Your task to perform on an android device: Go to display settings Image 0: 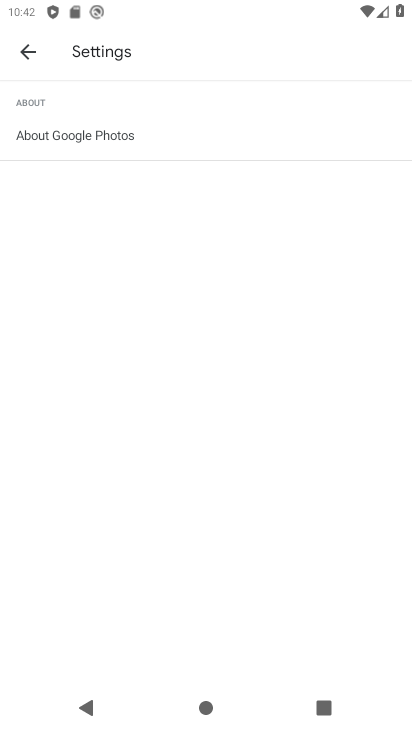
Step 0: press home button
Your task to perform on an android device: Go to display settings Image 1: 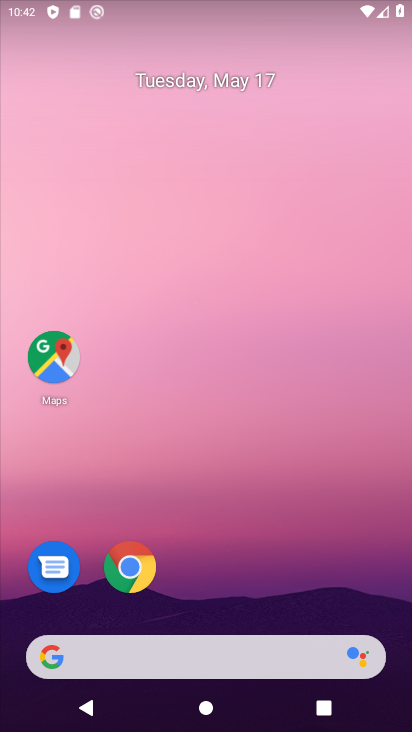
Step 1: drag from (240, 514) to (240, 237)
Your task to perform on an android device: Go to display settings Image 2: 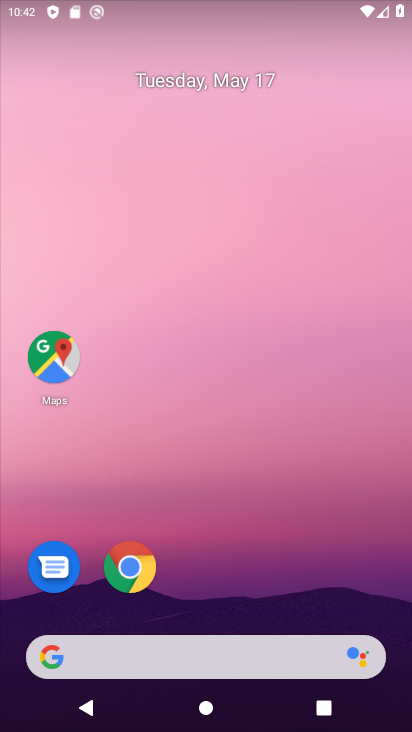
Step 2: drag from (238, 461) to (244, 240)
Your task to perform on an android device: Go to display settings Image 3: 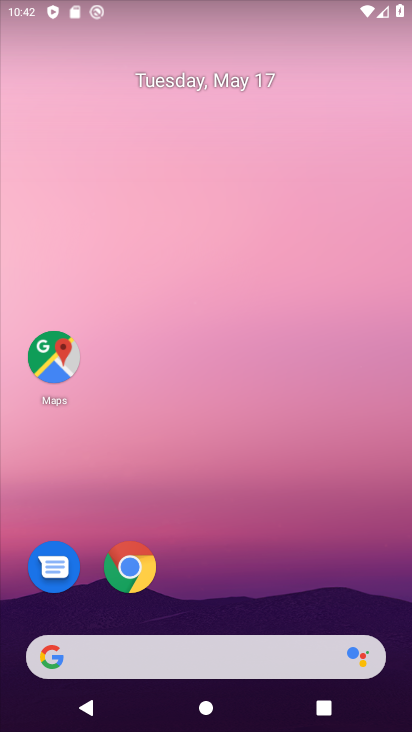
Step 3: drag from (229, 614) to (259, 131)
Your task to perform on an android device: Go to display settings Image 4: 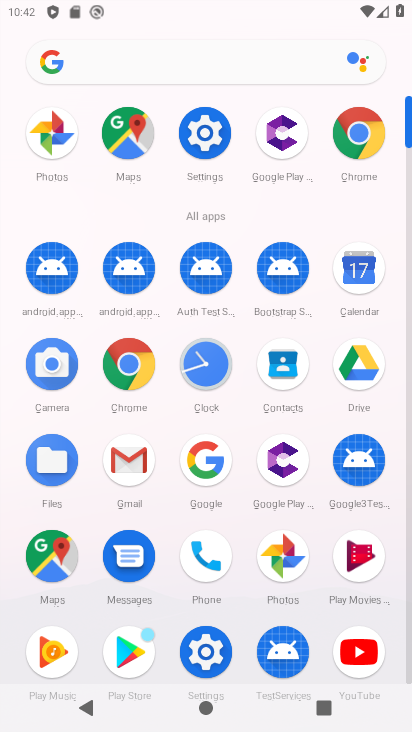
Step 4: click (213, 149)
Your task to perform on an android device: Go to display settings Image 5: 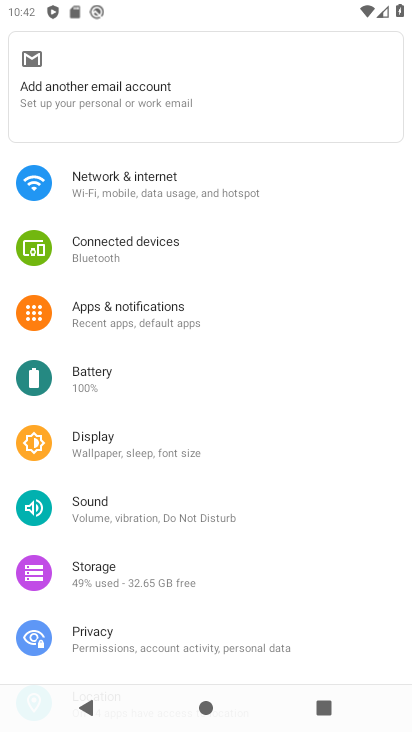
Step 5: click (148, 423)
Your task to perform on an android device: Go to display settings Image 6: 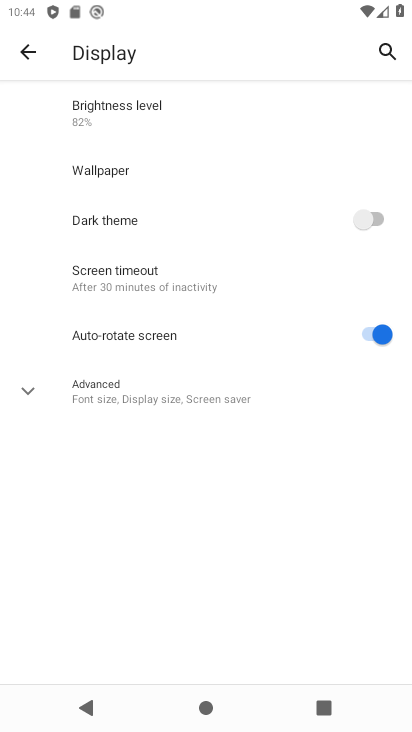
Step 6: task complete